Your task to perform on an android device: Search for Italian restaurants on Maps Image 0: 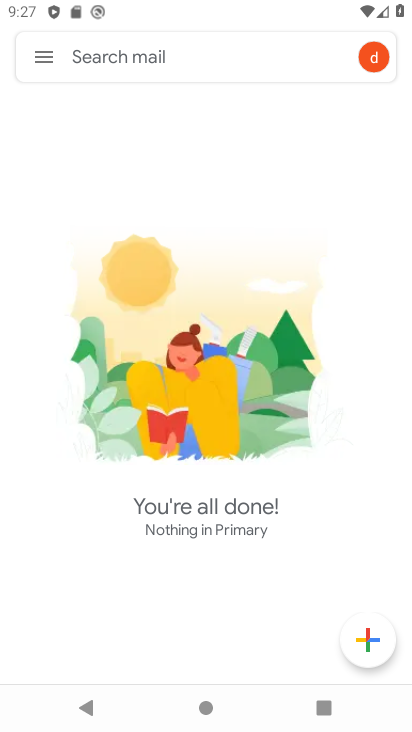
Step 0: press home button
Your task to perform on an android device: Search for Italian restaurants on Maps Image 1: 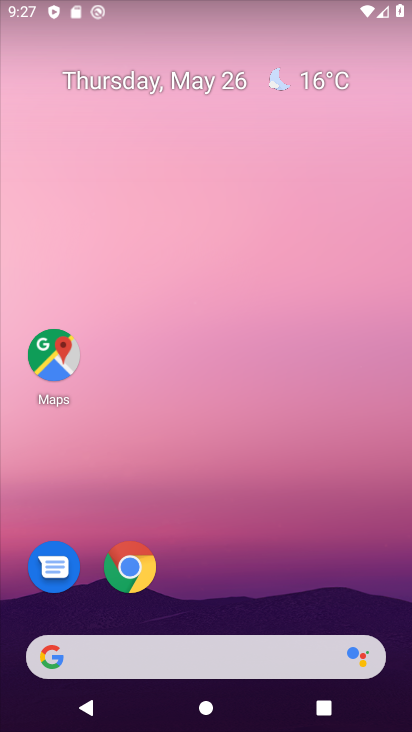
Step 1: click (64, 351)
Your task to perform on an android device: Search for Italian restaurants on Maps Image 2: 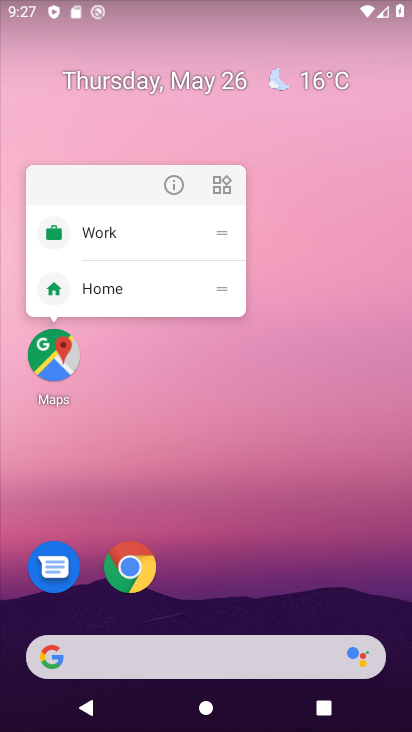
Step 2: click (49, 358)
Your task to perform on an android device: Search for Italian restaurants on Maps Image 3: 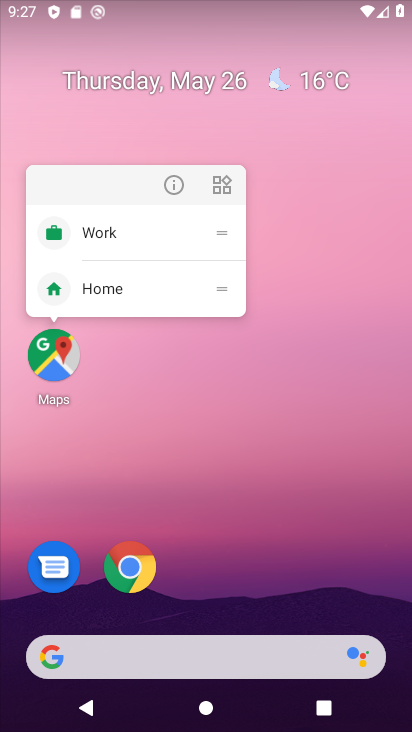
Step 3: click (49, 358)
Your task to perform on an android device: Search for Italian restaurants on Maps Image 4: 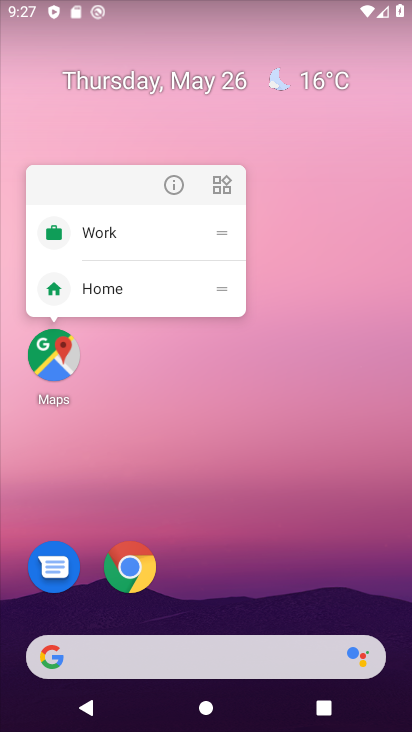
Step 4: click (49, 358)
Your task to perform on an android device: Search for Italian restaurants on Maps Image 5: 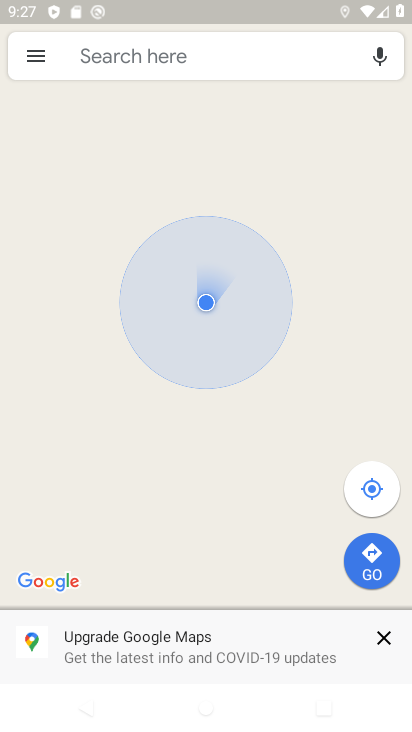
Step 5: click (102, 55)
Your task to perform on an android device: Search for Italian restaurants on Maps Image 6: 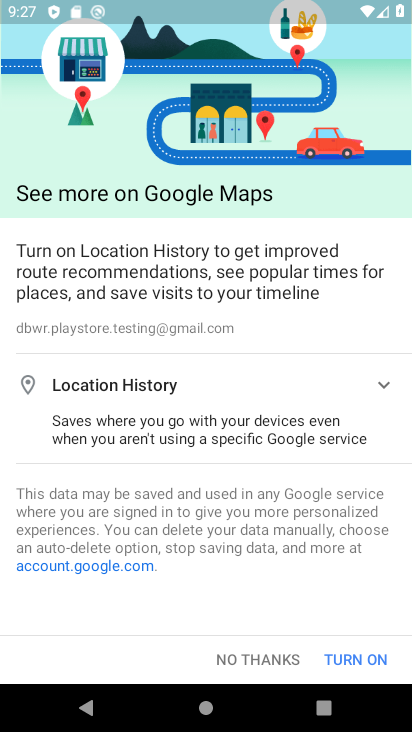
Step 6: click (364, 657)
Your task to perform on an android device: Search for Italian restaurants on Maps Image 7: 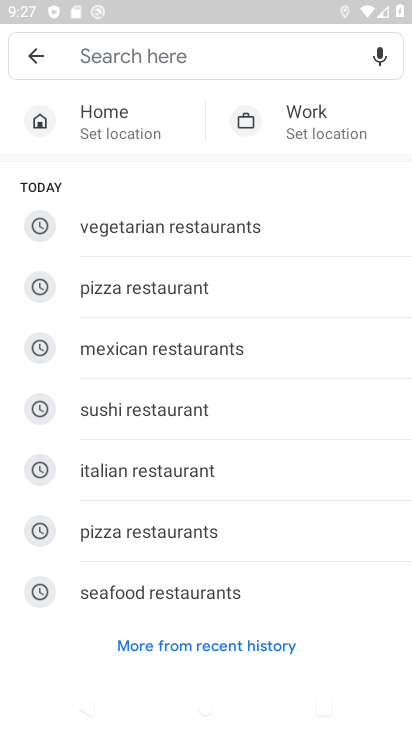
Step 7: click (158, 50)
Your task to perform on an android device: Search for Italian restaurants on Maps Image 8: 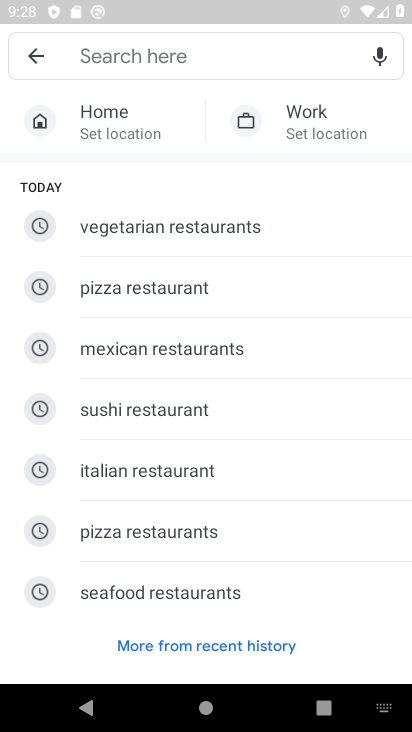
Step 8: type "Italian restaurants"
Your task to perform on an android device: Search for Italian restaurants on Maps Image 9: 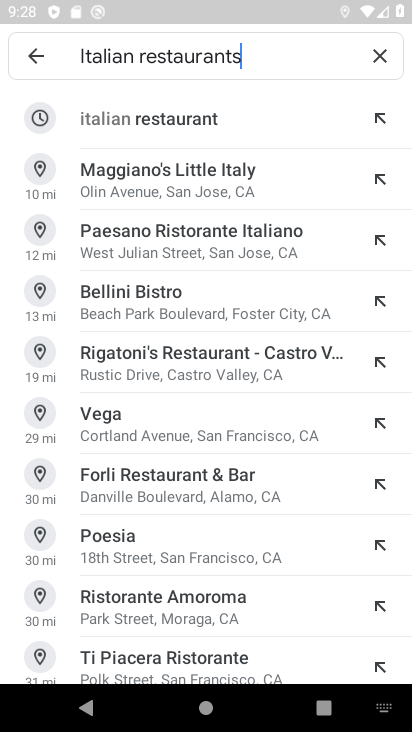
Step 9: click (111, 119)
Your task to perform on an android device: Search for Italian restaurants on Maps Image 10: 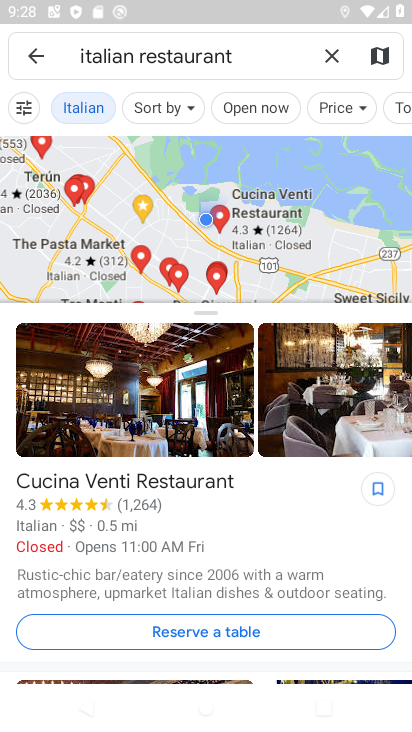
Step 10: task complete